Your task to perform on an android device: change notification settings in the gmail app Image 0: 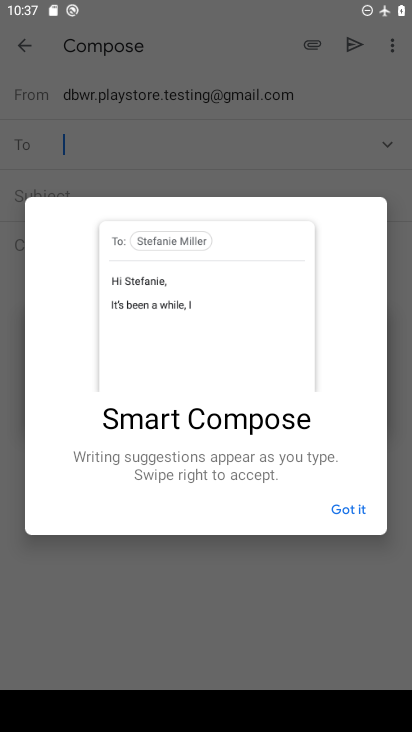
Step 0: press home button
Your task to perform on an android device: change notification settings in the gmail app Image 1: 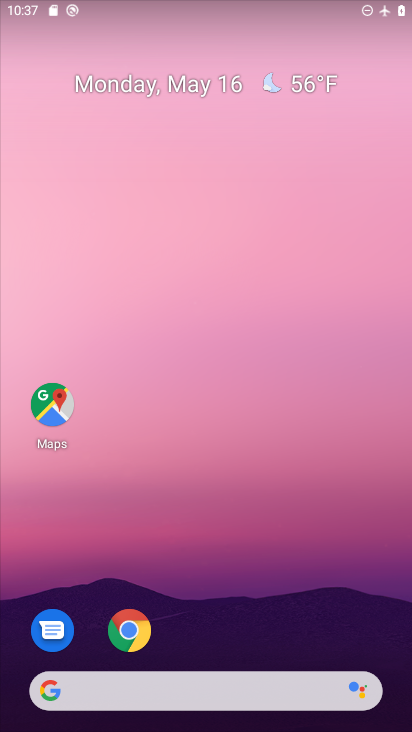
Step 1: drag from (195, 538) to (205, 73)
Your task to perform on an android device: change notification settings in the gmail app Image 2: 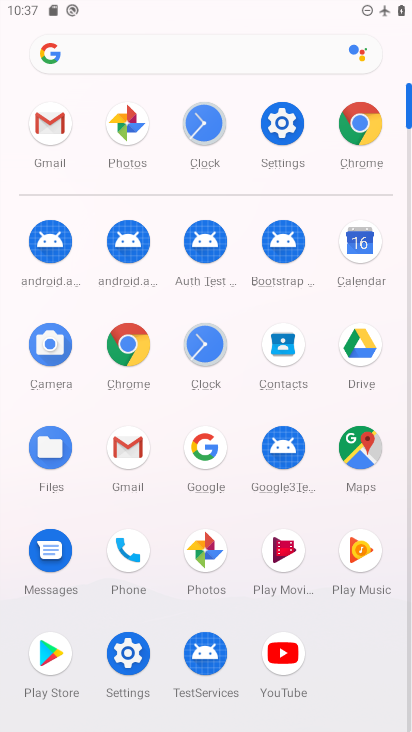
Step 2: click (52, 125)
Your task to perform on an android device: change notification settings in the gmail app Image 3: 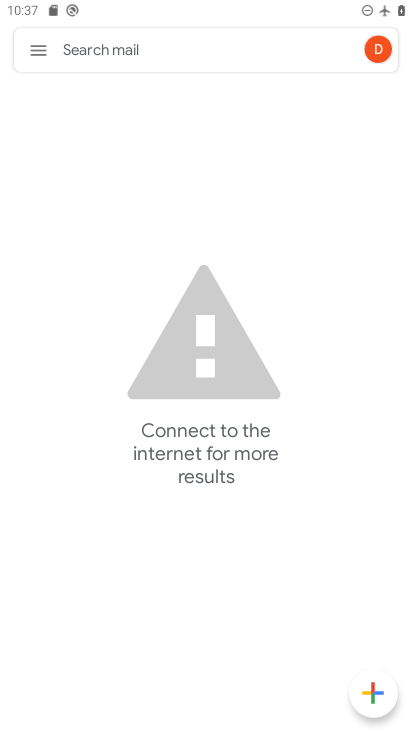
Step 3: click (34, 47)
Your task to perform on an android device: change notification settings in the gmail app Image 4: 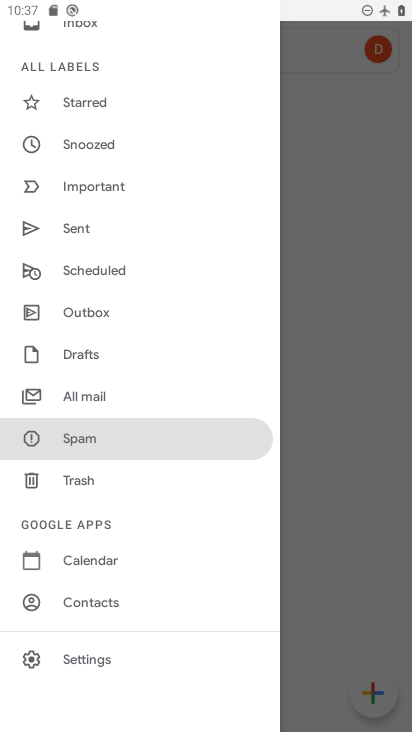
Step 4: click (59, 650)
Your task to perform on an android device: change notification settings in the gmail app Image 5: 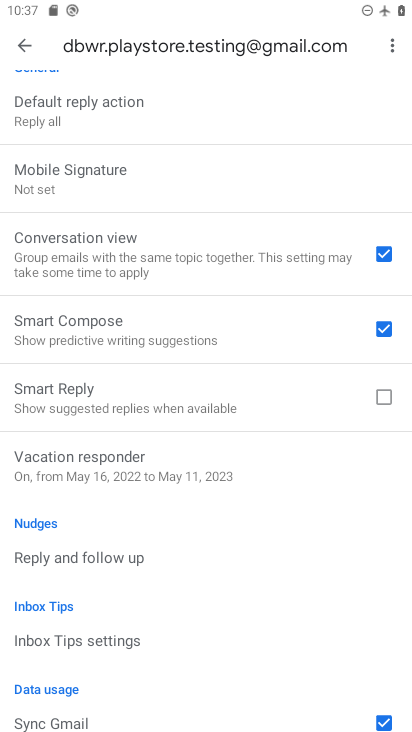
Step 5: drag from (156, 179) to (173, 519)
Your task to perform on an android device: change notification settings in the gmail app Image 6: 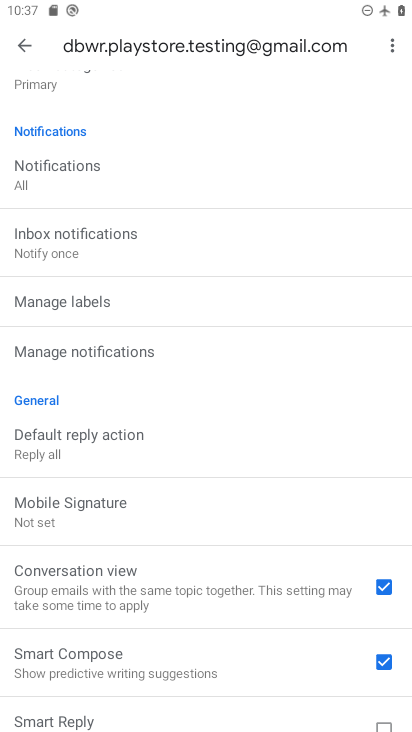
Step 6: click (184, 363)
Your task to perform on an android device: change notification settings in the gmail app Image 7: 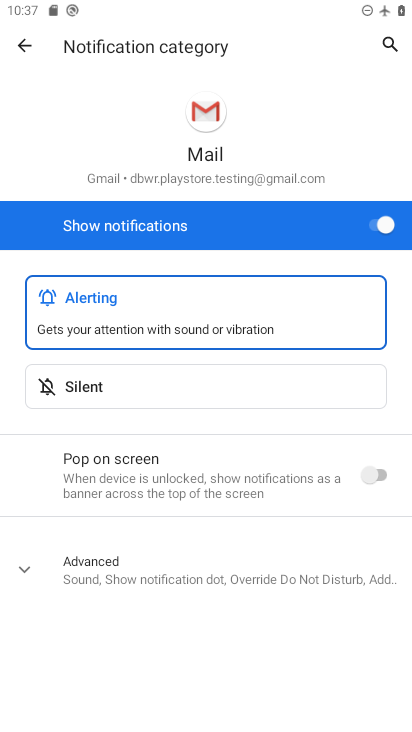
Step 7: click (374, 223)
Your task to perform on an android device: change notification settings in the gmail app Image 8: 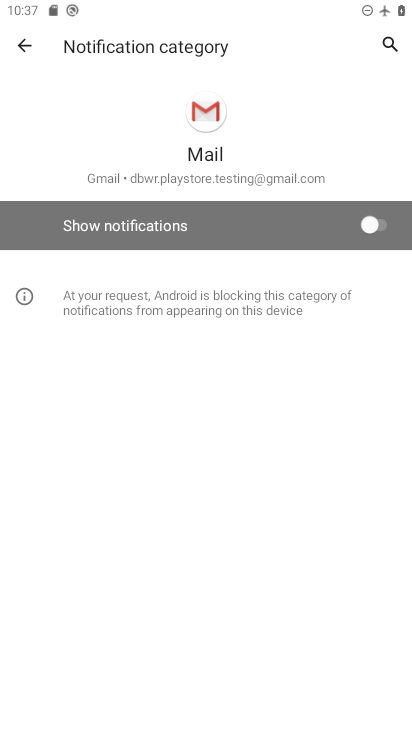
Step 8: task complete